Your task to perform on an android device: Open Google Maps and go to "Timeline" Image 0: 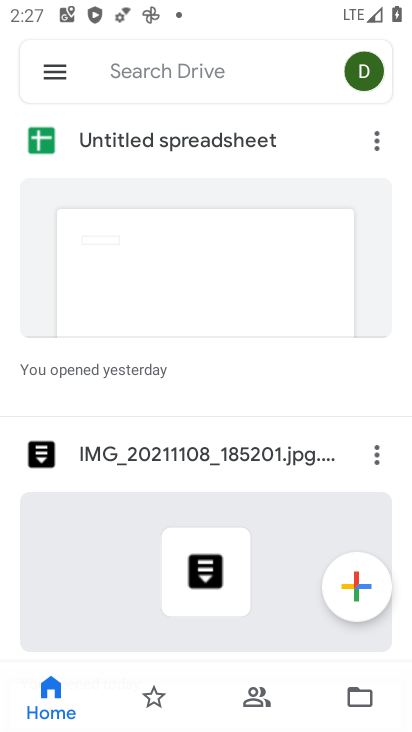
Step 0: press home button
Your task to perform on an android device: Open Google Maps and go to "Timeline" Image 1: 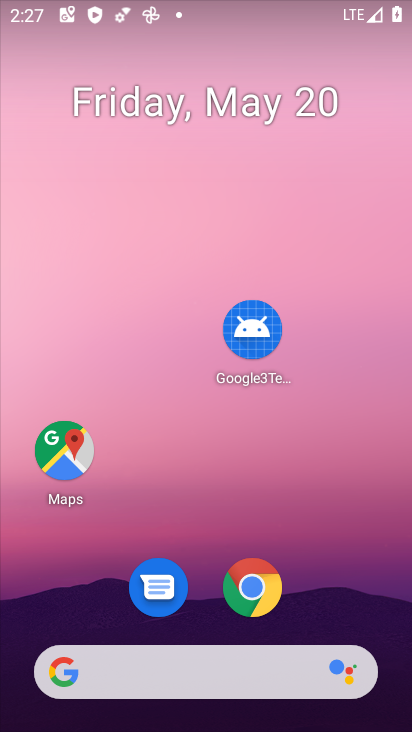
Step 1: click (60, 436)
Your task to perform on an android device: Open Google Maps and go to "Timeline" Image 2: 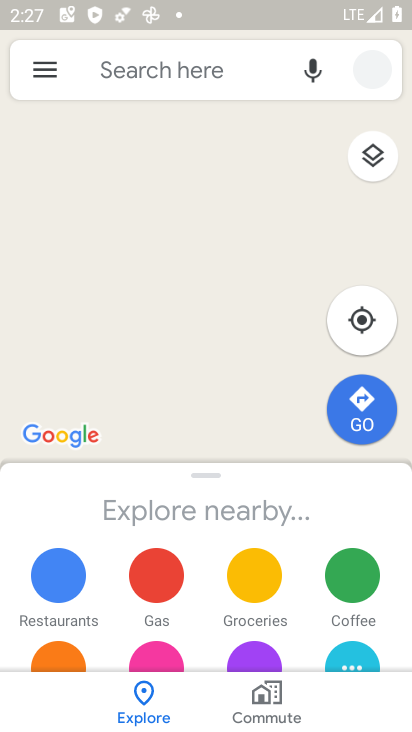
Step 2: click (39, 60)
Your task to perform on an android device: Open Google Maps and go to "Timeline" Image 3: 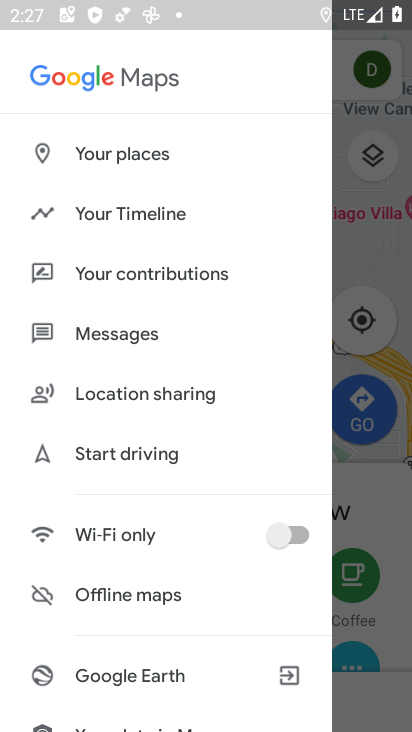
Step 3: click (131, 204)
Your task to perform on an android device: Open Google Maps and go to "Timeline" Image 4: 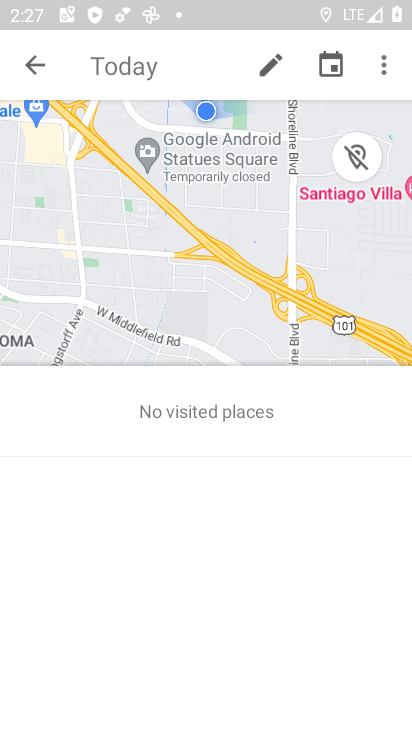
Step 4: task complete